Your task to perform on an android device: Open the calendar and show me this week's events? Image 0: 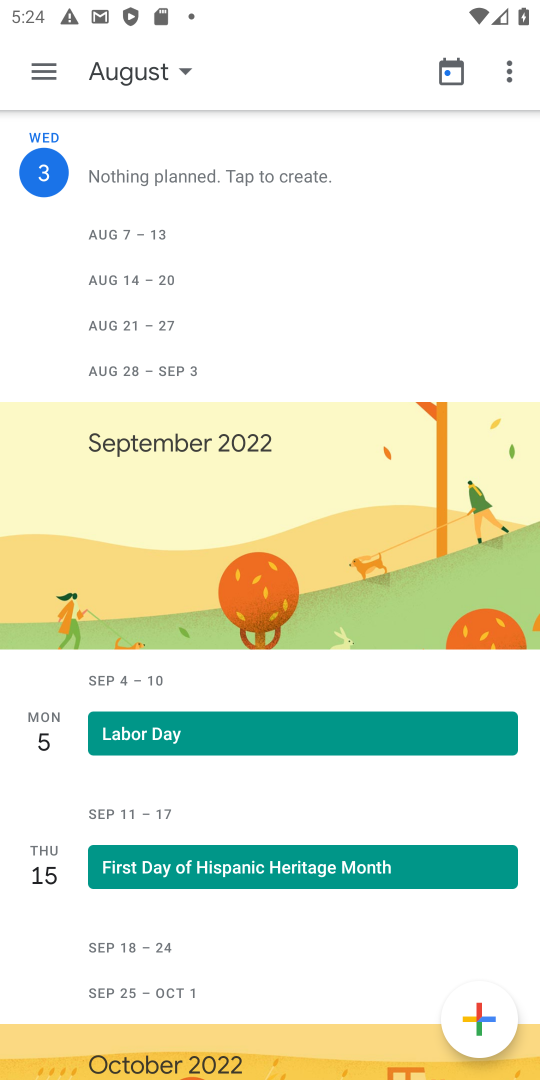
Step 0: click (36, 70)
Your task to perform on an android device: Open the calendar and show me this week's events? Image 1: 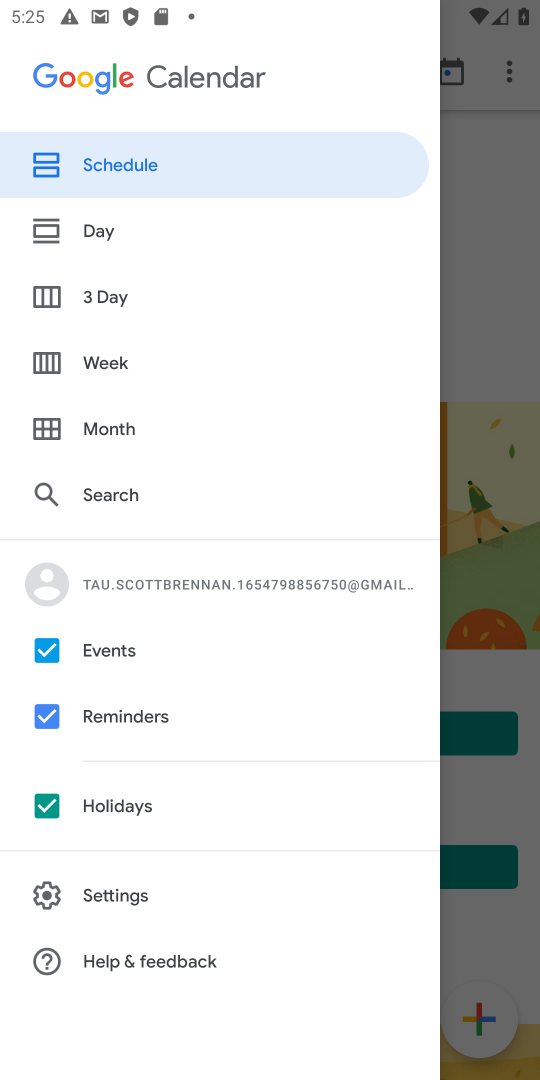
Step 1: click (120, 364)
Your task to perform on an android device: Open the calendar and show me this week's events? Image 2: 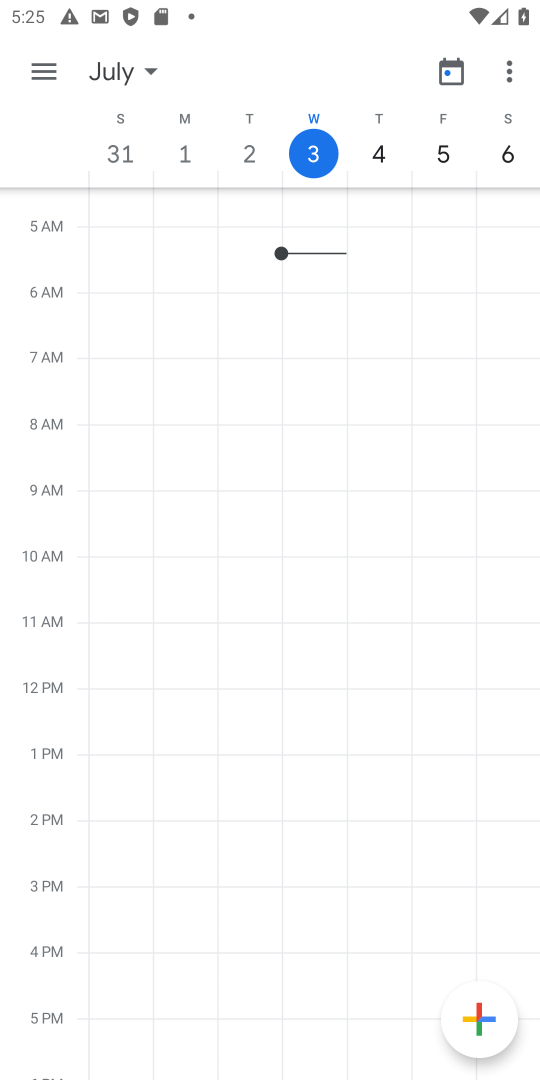
Step 2: task complete